Your task to perform on an android device: open wifi settings Image 0: 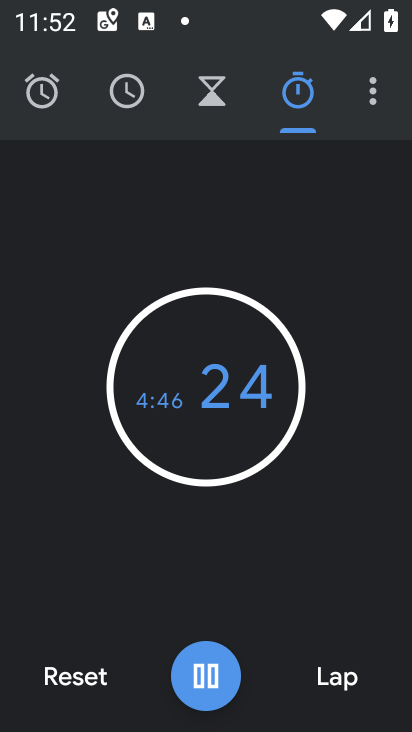
Step 0: press home button
Your task to perform on an android device: open wifi settings Image 1: 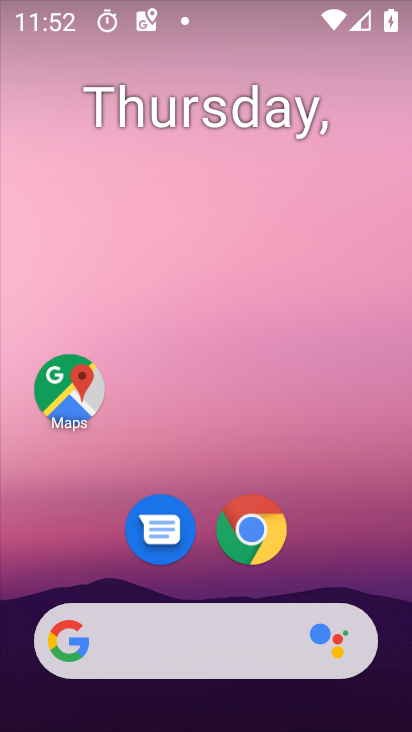
Step 1: drag from (247, 600) to (156, 63)
Your task to perform on an android device: open wifi settings Image 2: 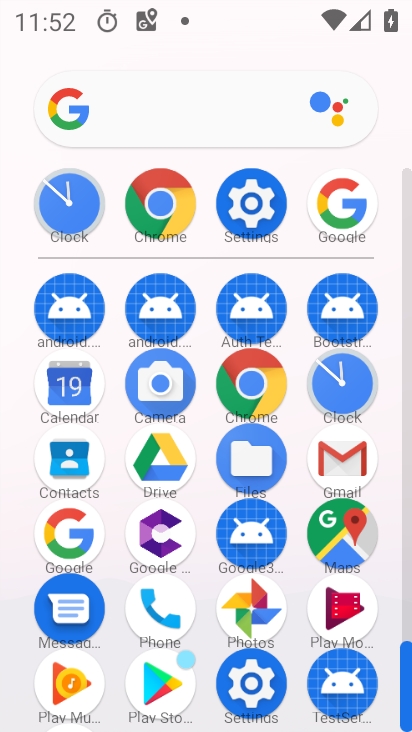
Step 2: click (248, 211)
Your task to perform on an android device: open wifi settings Image 3: 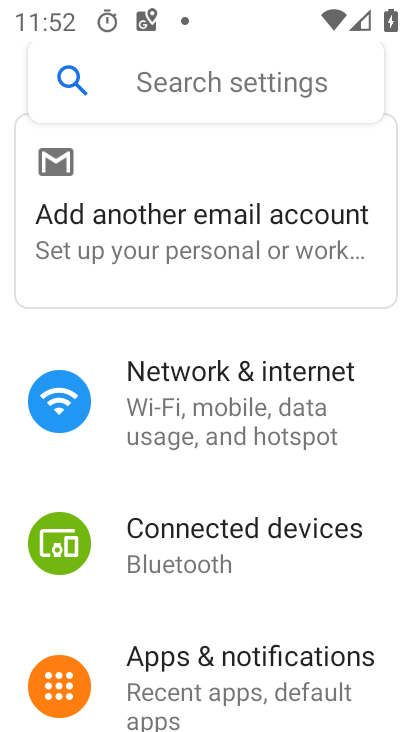
Step 3: click (281, 437)
Your task to perform on an android device: open wifi settings Image 4: 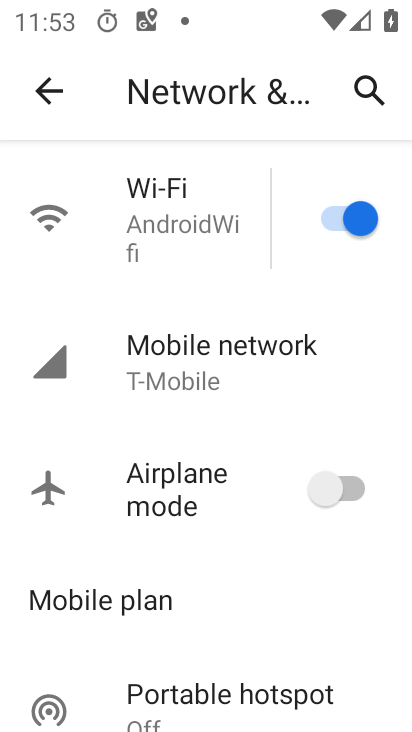
Step 4: click (198, 246)
Your task to perform on an android device: open wifi settings Image 5: 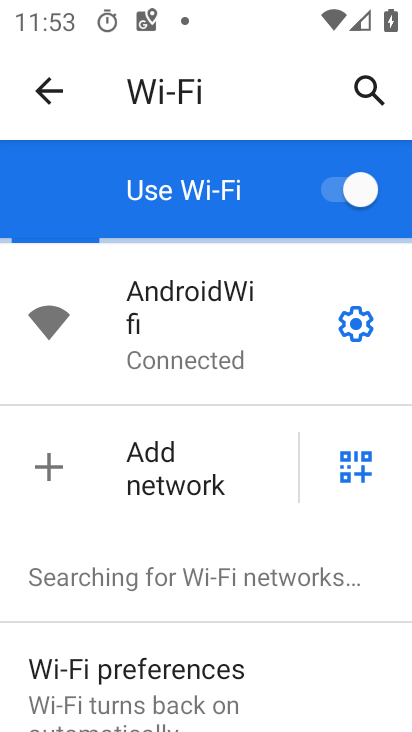
Step 5: task complete